Your task to perform on an android device: turn off improve location accuracy Image 0: 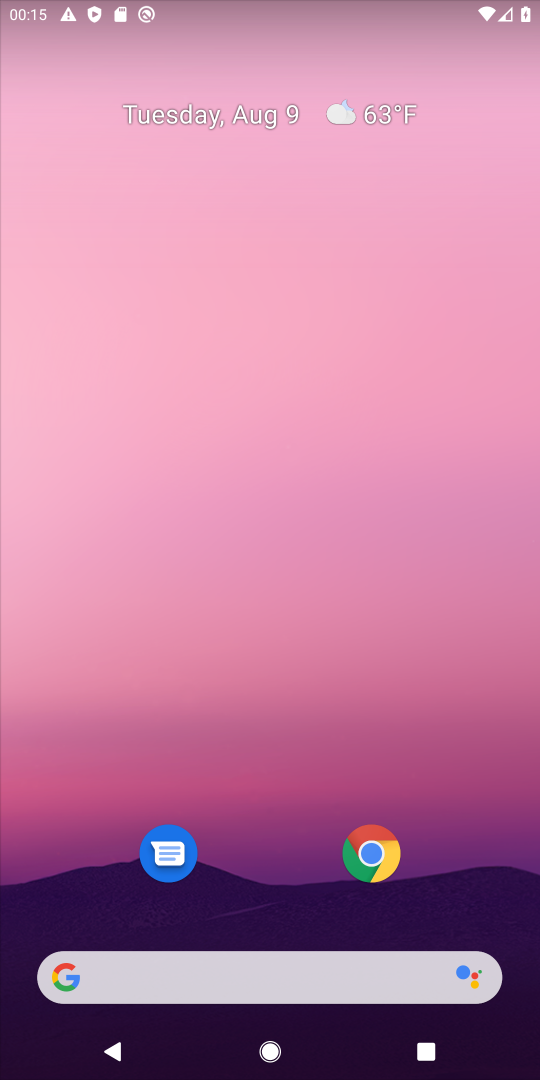
Step 0: press home button
Your task to perform on an android device: turn off improve location accuracy Image 1: 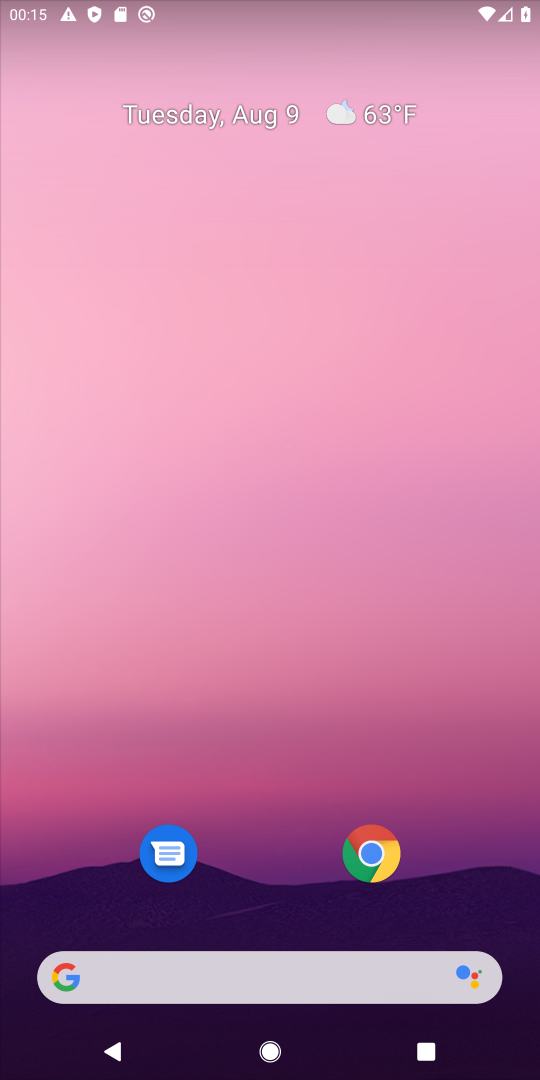
Step 1: drag from (267, 845) to (281, 168)
Your task to perform on an android device: turn off improve location accuracy Image 2: 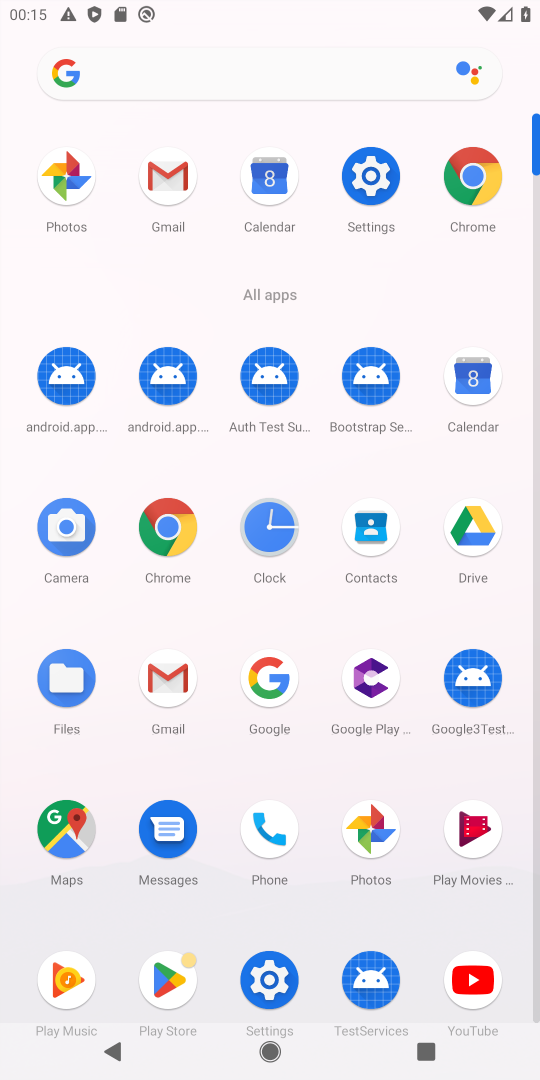
Step 2: click (367, 197)
Your task to perform on an android device: turn off improve location accuracy Image 3: 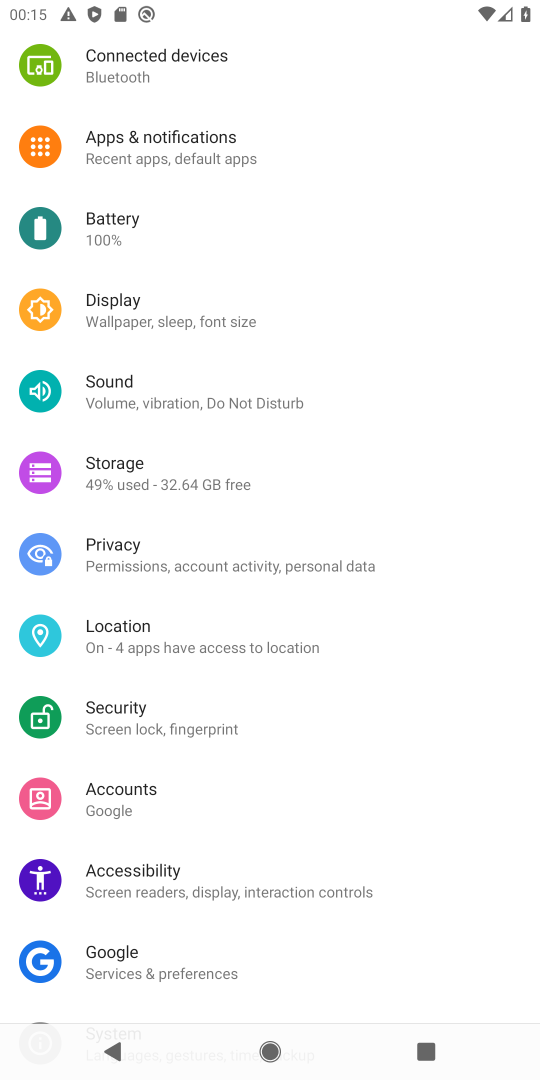
Step 3: click (138, 643)
Your task to perform on an android device: turn off improve location accuracy Image 4: 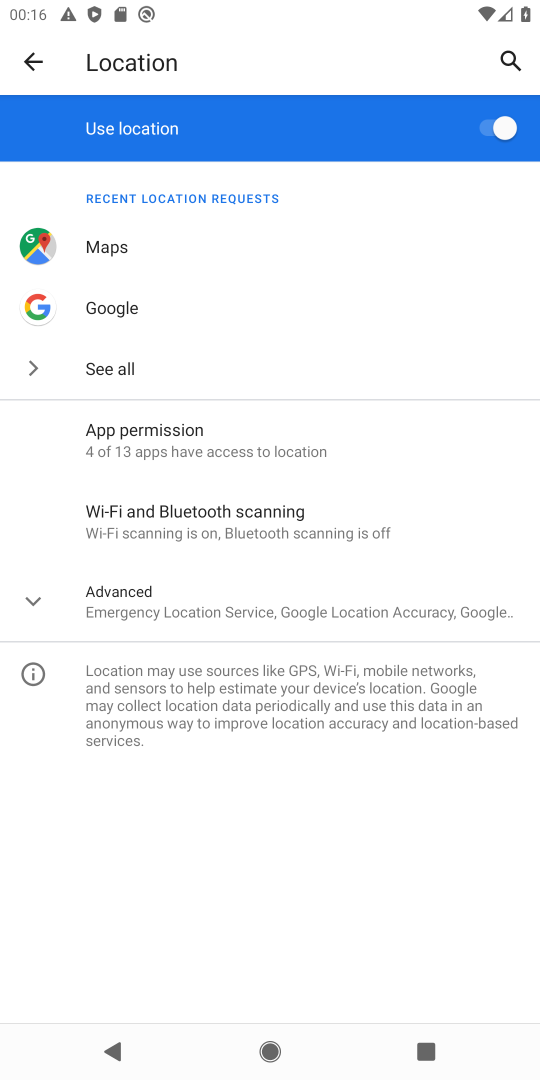
Step 4: click (249, 594)
Your task to perform on an android device: turn off improve location accuracy Image 5: 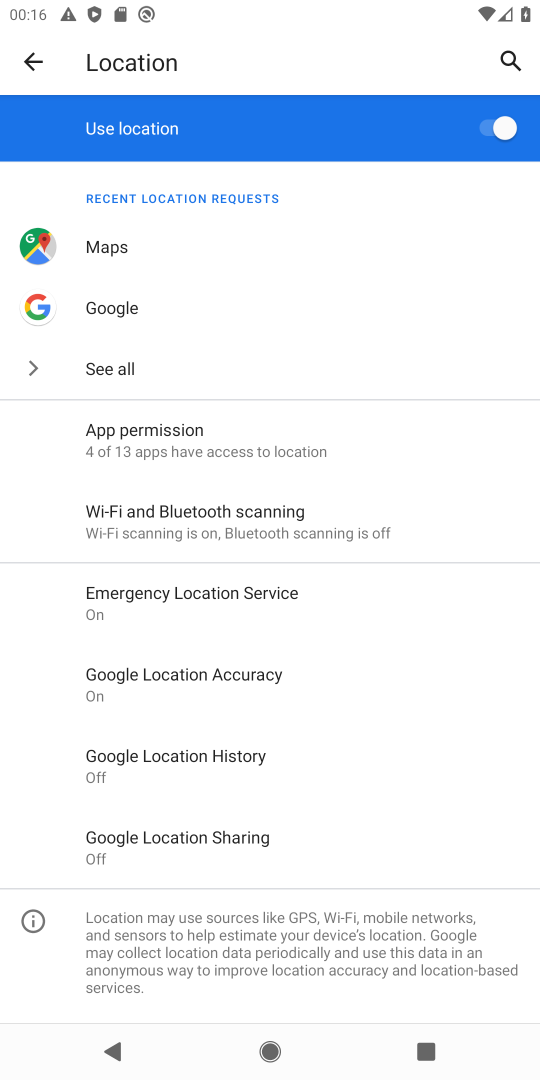
Step 5: click (224, 684)
Your task to perform on an android device: turn off improve location accuracy Image 6: 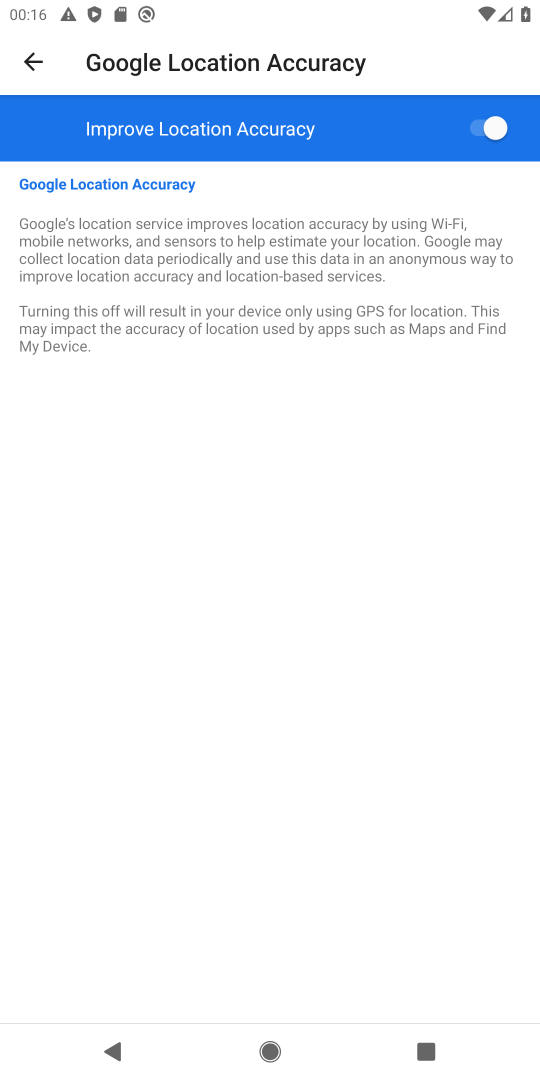
Step 6: click (484, 117)
Your task to perform on an android device: turn off improve location accuracy Image 7: 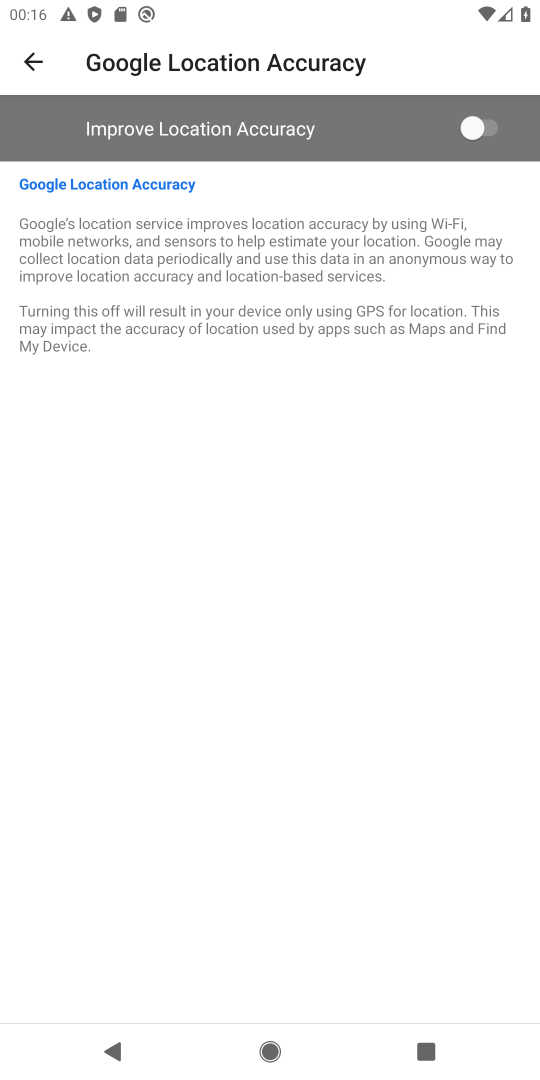
Step 7: task complete